Your task to perform on an android device: Open the calendar app, open the side menu, and click the "Day" option Image 0: 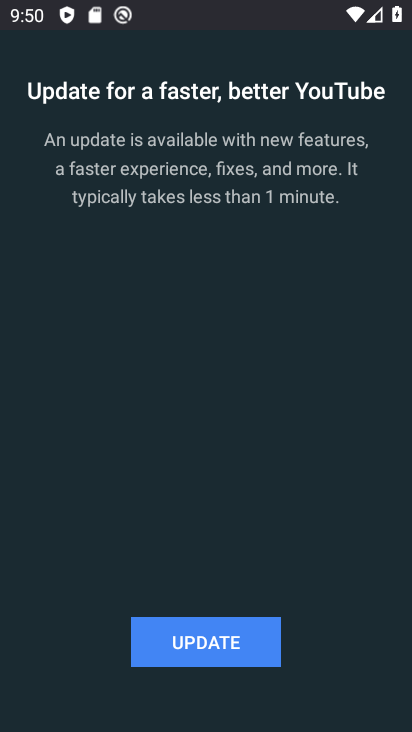
Step 0: press home button
Your task to perform on an android device: Open the calendar app, open the side menu, and click the "Day" option Image 1: 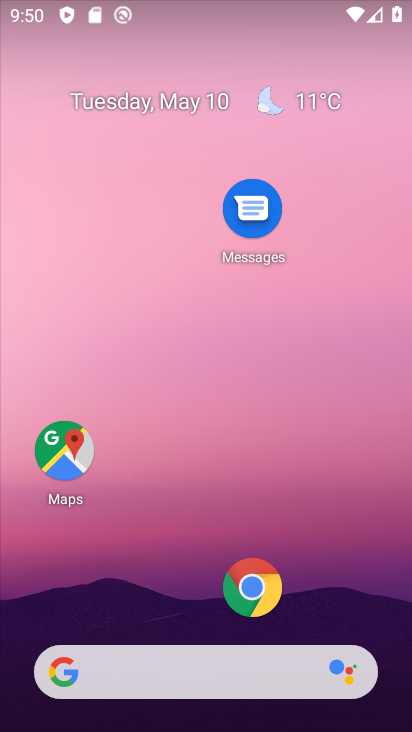
Step 1: drag from (136, 569) to (159, 122)
Your task to perform on an android device: Open the calendar app, open the side menu, and click the "Day" option Image 2: 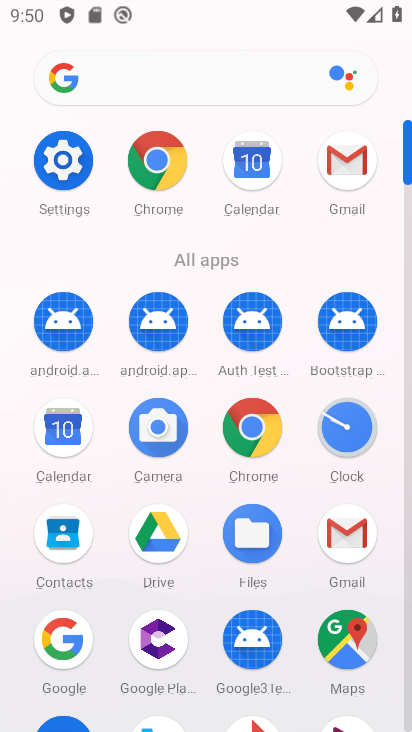
Step 2: click (65, 464)
Your task to perform on an android device: Open the calendar app, open the side menu, and click the "Day" option Image 3: 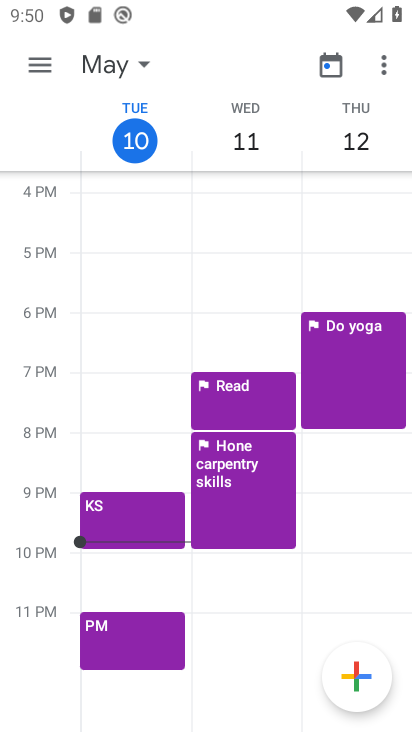
Step 3: click (37, 63)
Your task to perform on an android device: Open the calendar app, open the side menu, and click the "Day" option Image 4: 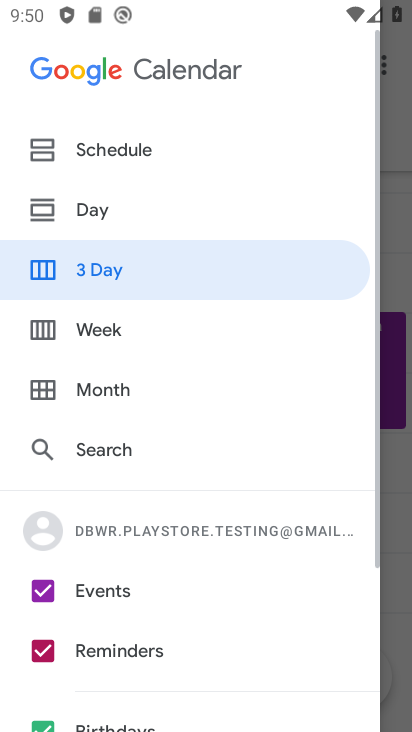
Step 4: click (92, 220)
Your task to perform on an android device: Open the calendar app, open the side menu, and click the "Day" option Image 5: 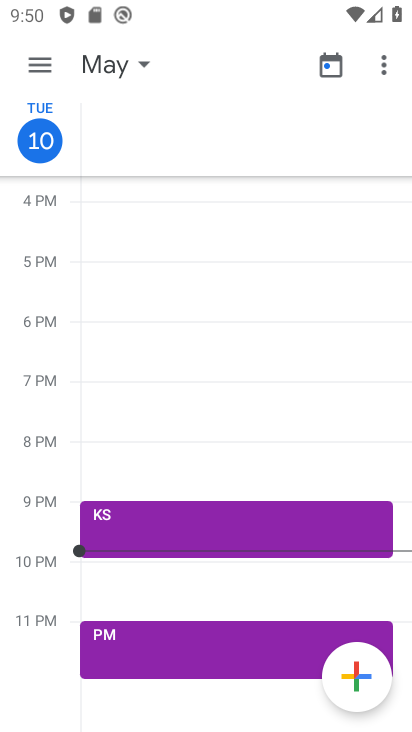
Step 5: task complete